Your task to perform on an android device: Open ESPN.com Image 0: 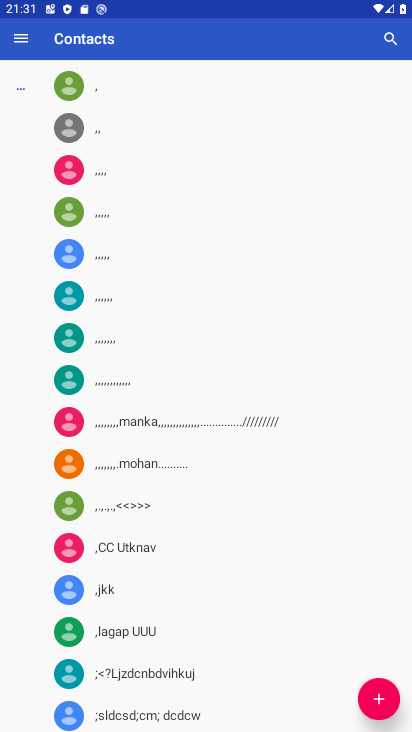
Step 0: press back button
Your task to perform on an android device: Open ESPN.com Image 1: 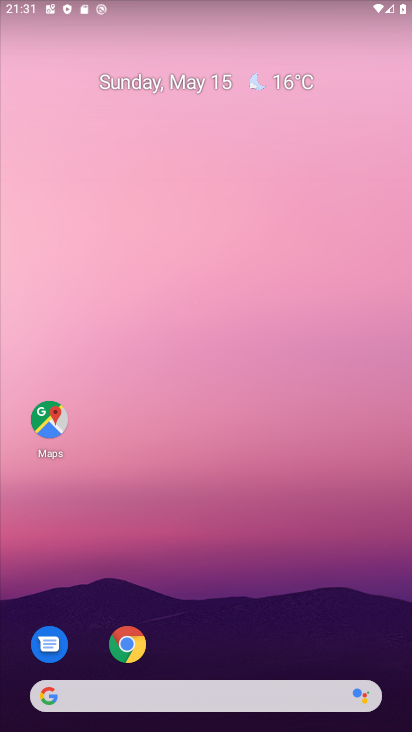
Step 1: click (114, 649)
Your task to perform on an android device: Open ESPN.com Image 2: 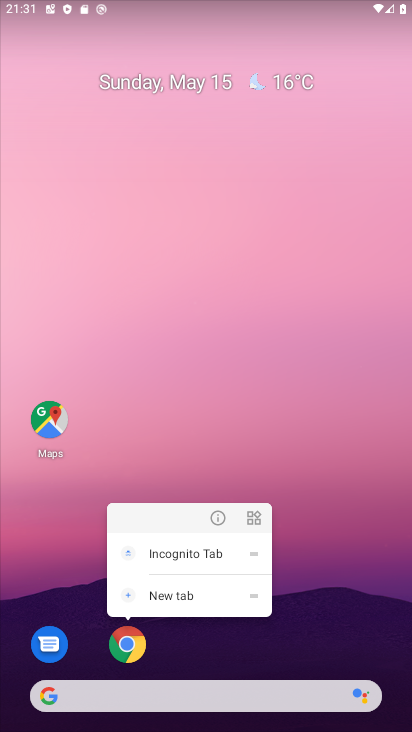
Step 2: click (126, 648)
Your task to perform on an android device: Open ESPN.com Image 3: 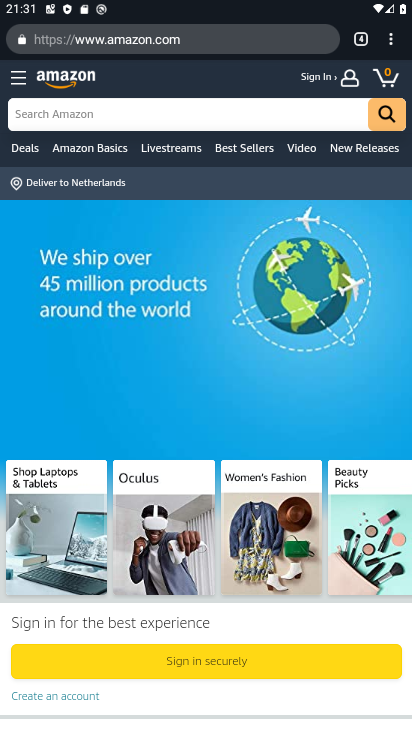
Step 3: click (363, 40)
Your task to perform on an android device: Open ESPN.com Image 4: 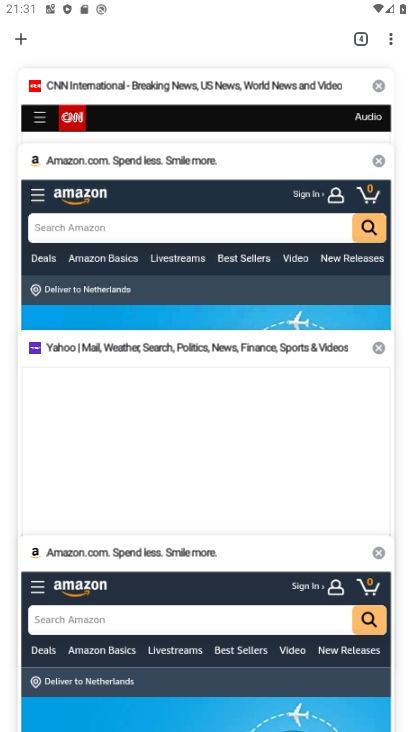
Step 4: click (23, 33)
Your task to perform on an android device: Open ESPN.com Image 5: 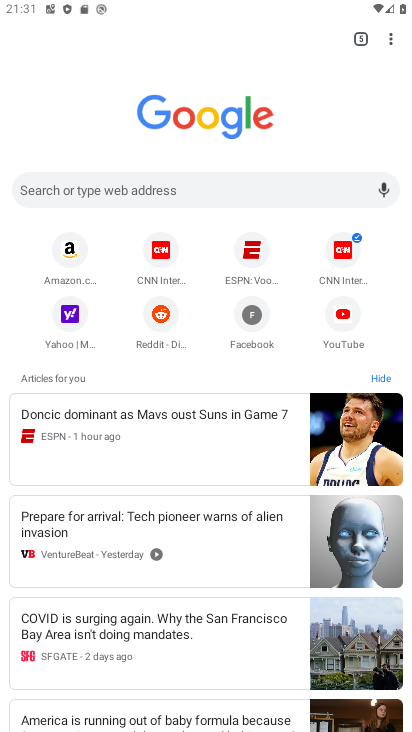
Step 5: click (241, 247)
Your task to perform on an android device: Open ESPN.com Image 6: 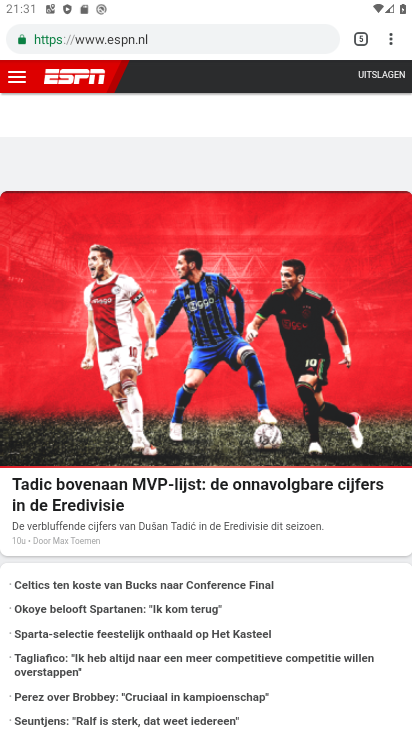
Step 6: task complete